Your task to perform on an android device: Do I have any events this weekend? Image 0: 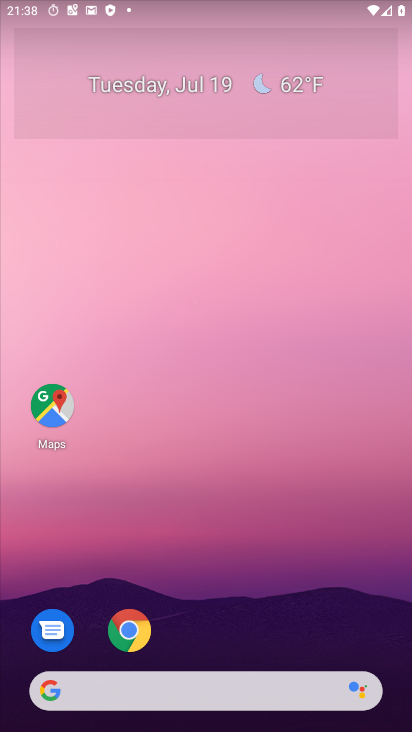
Step 0: click (148, 694)
Your task to perform on an android device: Do I have any events this weekend? Image 1: 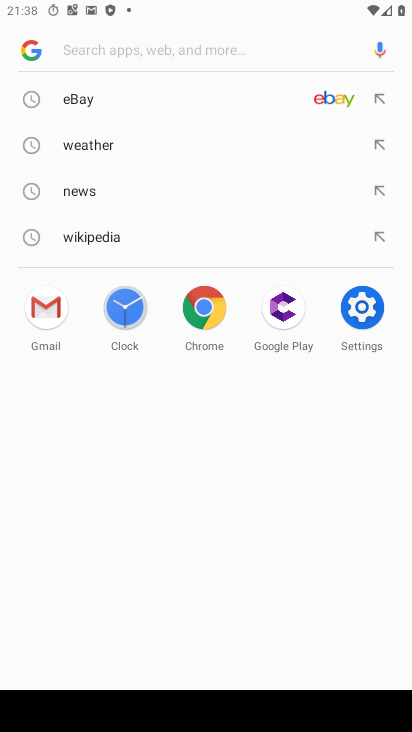
Step 1: press home button
Your task to perform on an android device: Do I have any events this weekend? Image 2: 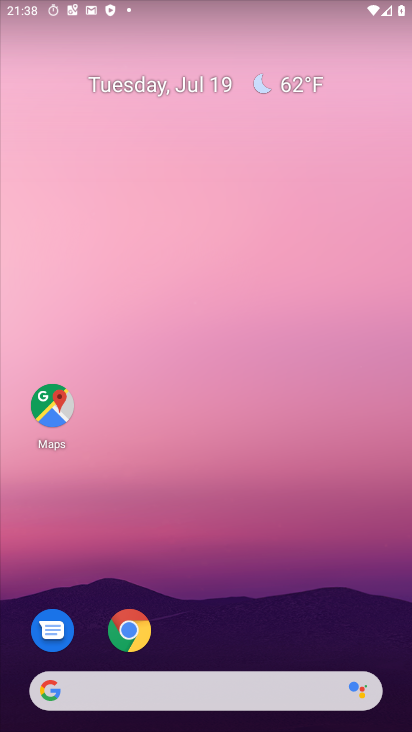
Step 2: drag from (46, 628) to (224, 220)
Your task to perform on an android device: Do I have any events this weekend? Image 3: 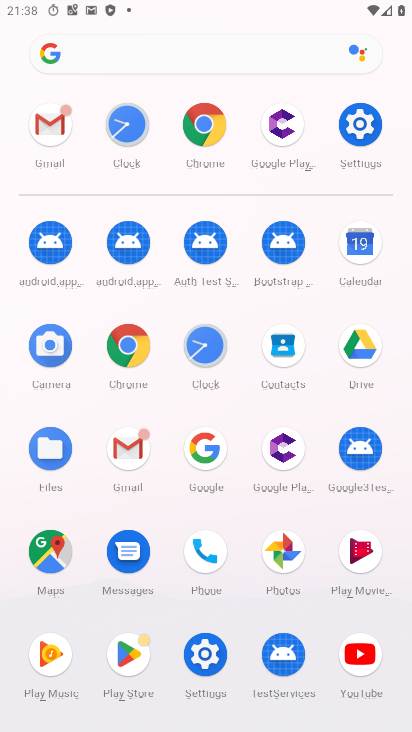
Step 3: click (358, 263)
Your task to perform on an android device: Do I have any events this weekend? Image 4: 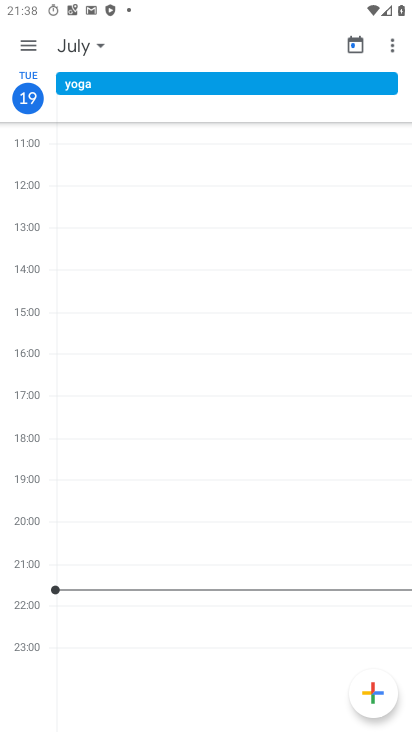
Step 4: click (99, 49)
Your task to perform on an android device: Do I have any events this weekend? Image 5: 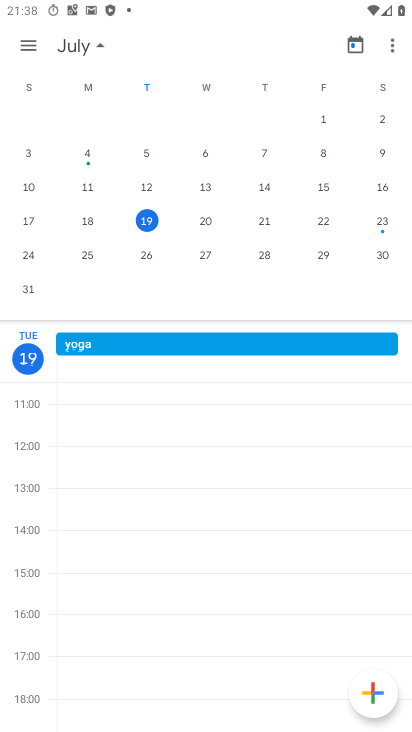
Step 5: task complete